Your task to perform on an android device: Add usb-b to the cart on newegg Image 0: 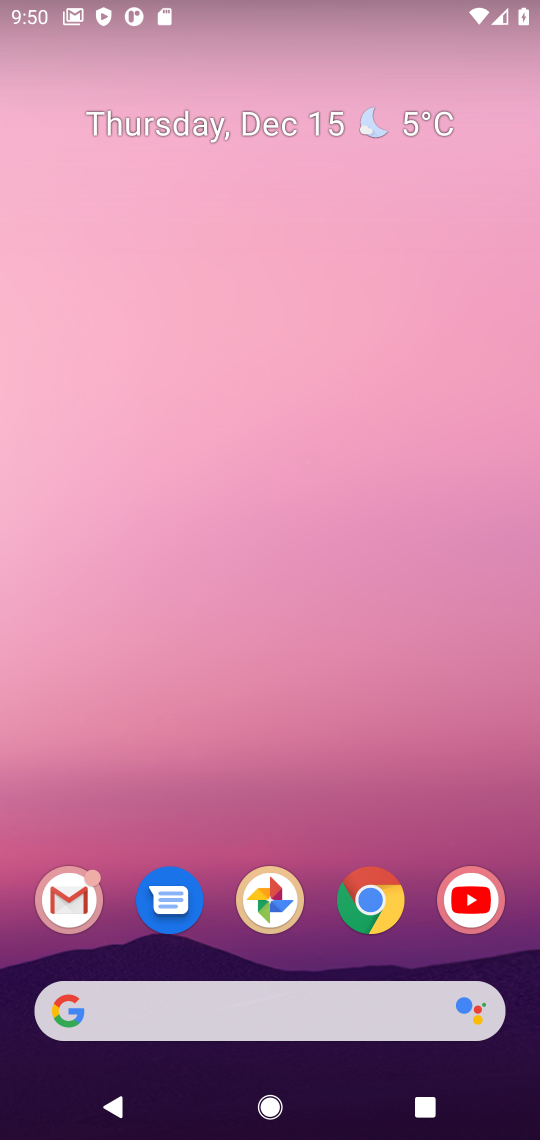
Step 0: click (395, 884)
Your task to perform on an android device: Add usb-b to the cart on newegg Image 1: 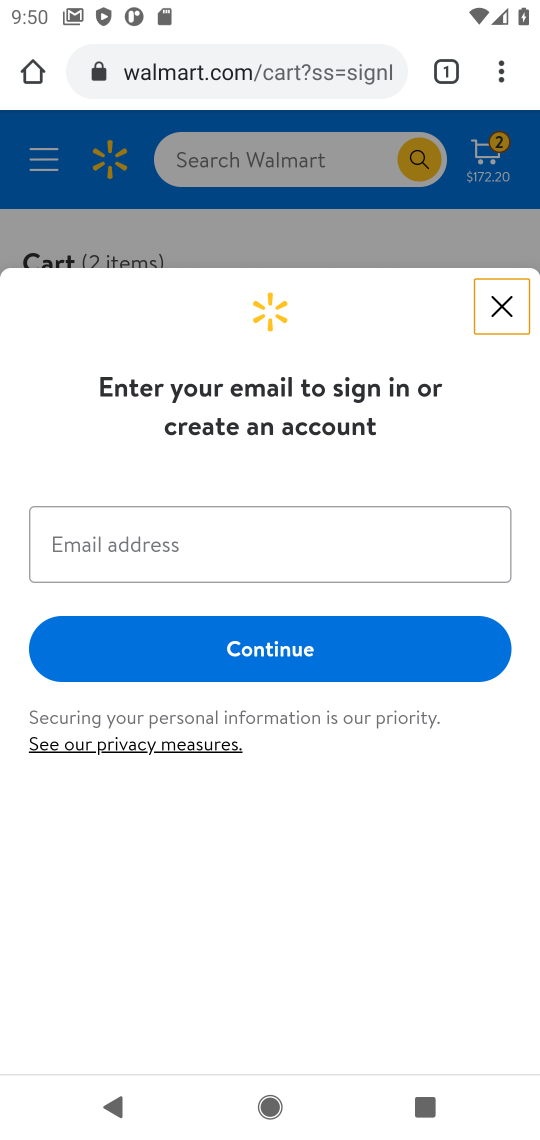
Step 1: click (235, 65)
Your task to perform on an android device: Add usb-b to the cart on newegg Image 2: 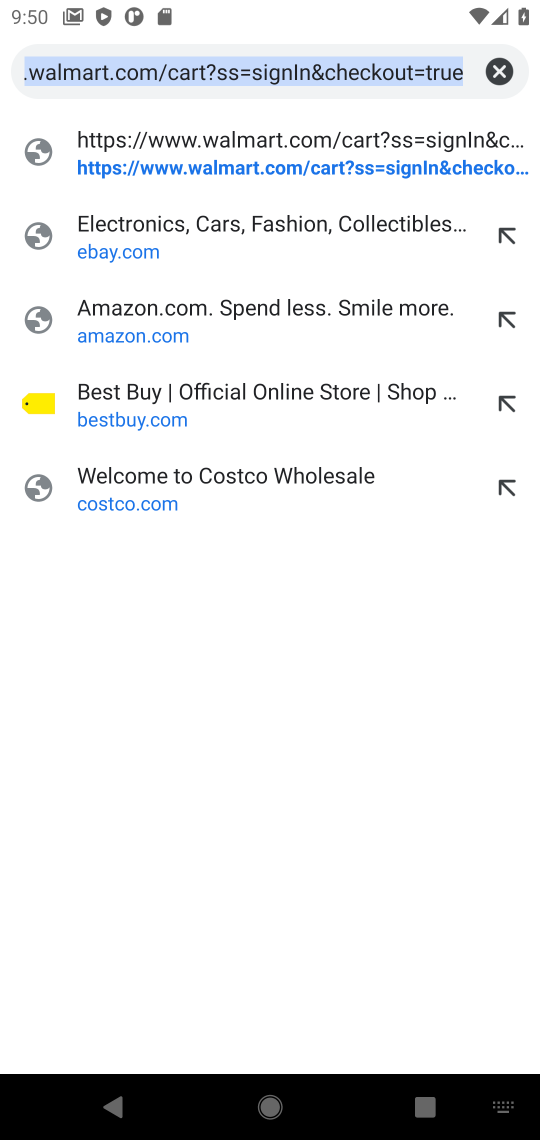
Step 2: type "newegg"
Your task to perform on an android device: Add usb-b to the cart on newegg Image 3: 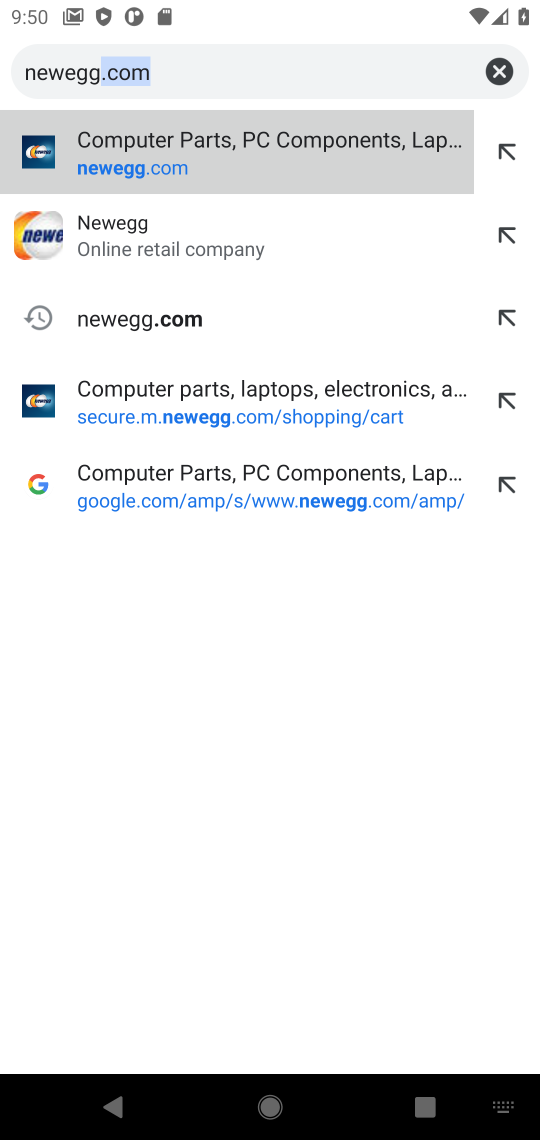
Step 3: click (254, 166)
Your task to perform on an android device: Add usb-b to the cart on newegg Image 4: 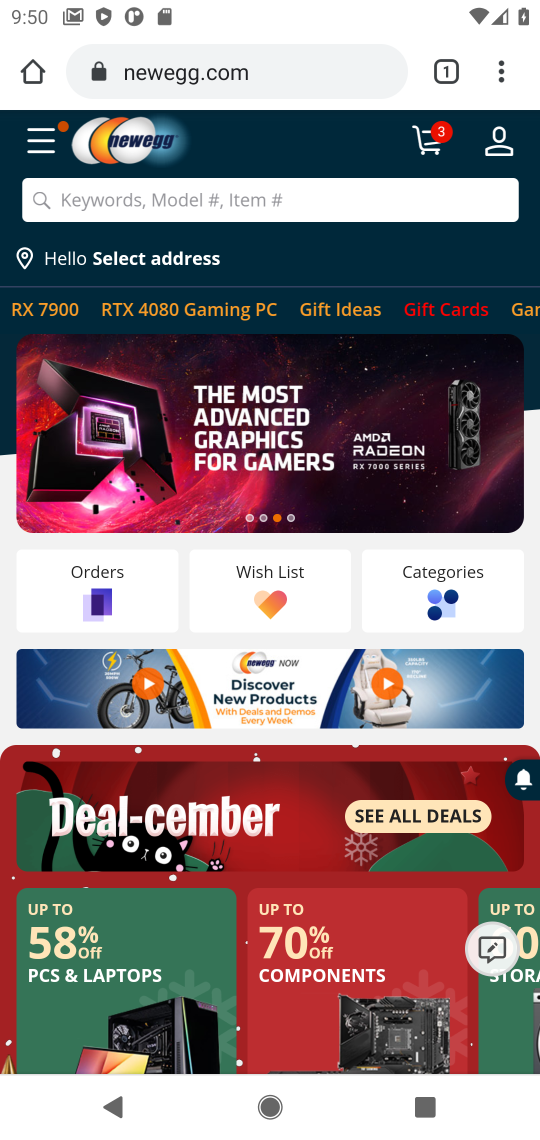
Step 4: click (228, 205)
Your task to perform on an android device: Add usb-b to the cart on newegg Image 5: 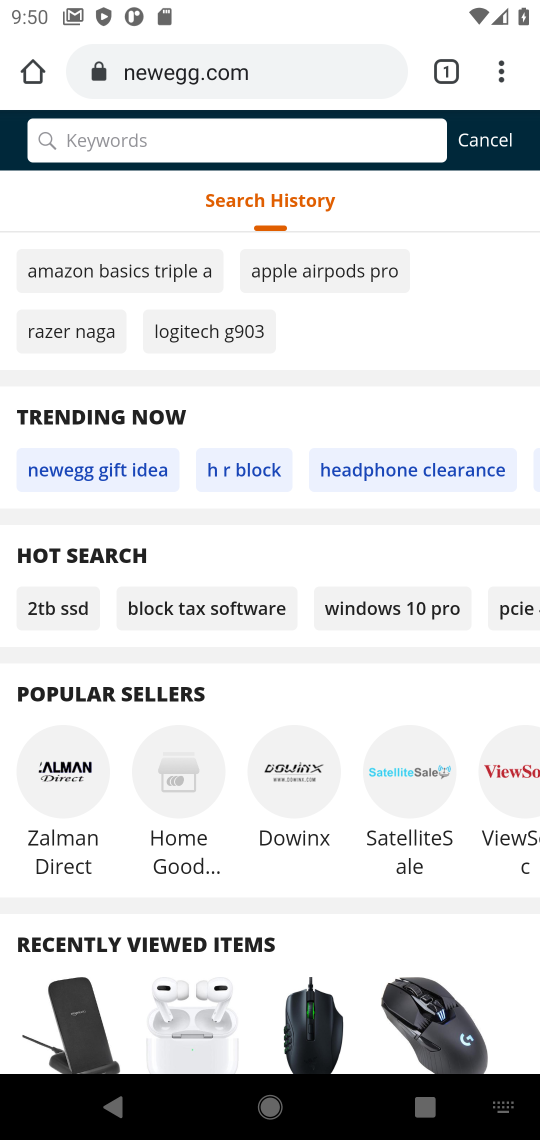
Step 5: type "usb-b"
Your task to perform on an android device: Add usb-b to the cart on newegg Image 6: 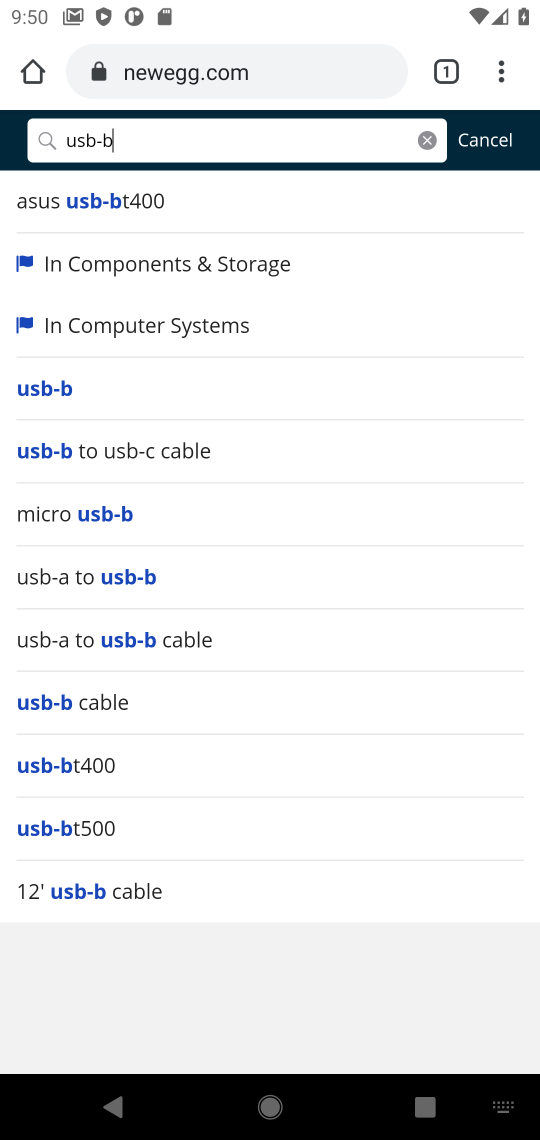
Step 6: press enter
Your task to perform on an android device: Add usb-b to the cart on newegg Image 7: 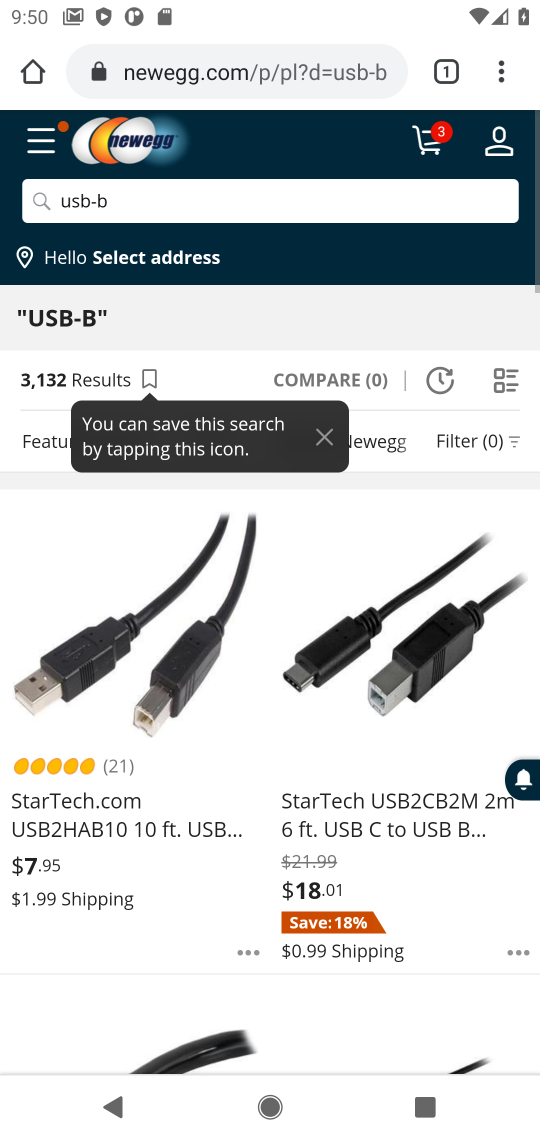
Step 7: click (144, 684)
Your task to perform on an android device: Add usb-b to the cart on newegg Image 8: 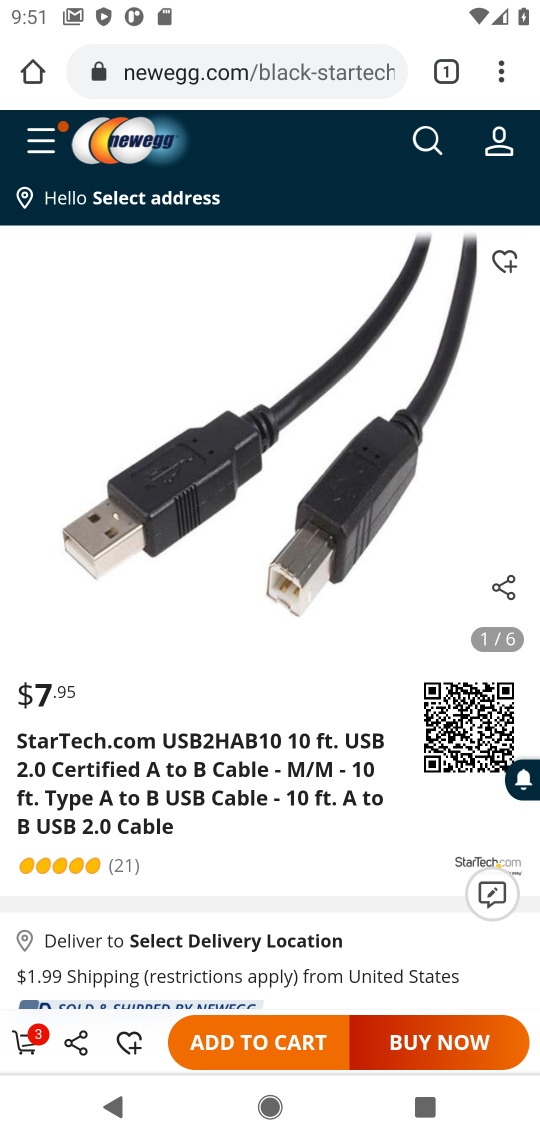
Step 8: click (233, 1045)
Your task to perform on an android device: Add usb-b to the cart on newegg Image 9: 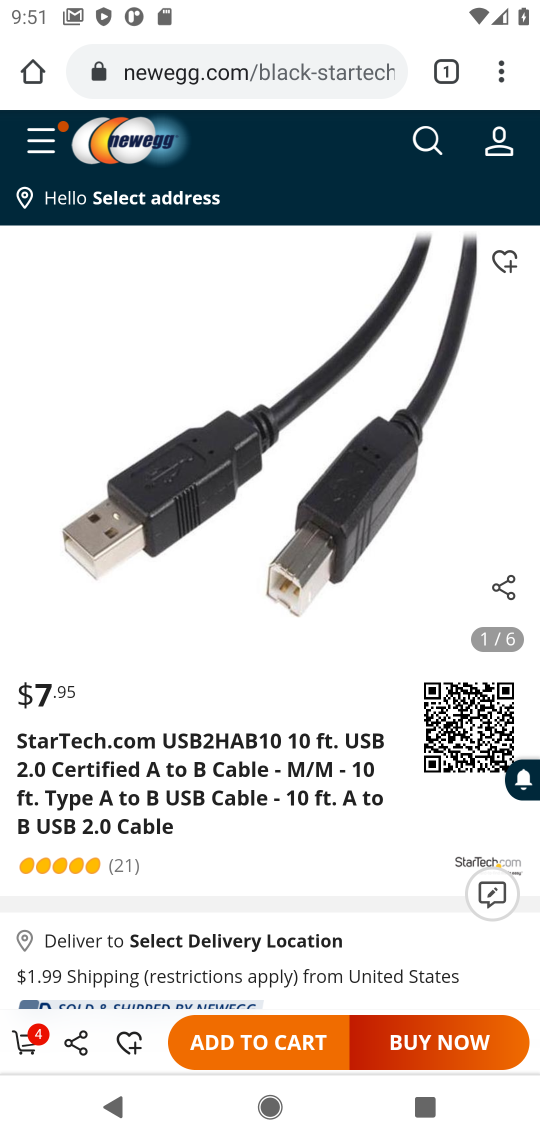
Step 9: task complete